Your task to perform on an android device: turn on translation in the chrome app Image 0: 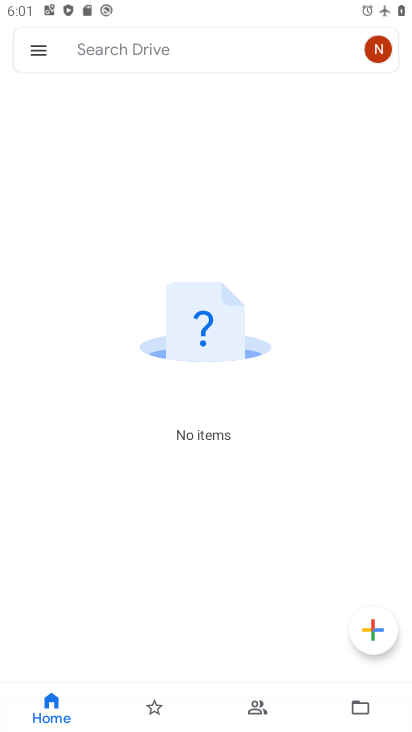
Step 0: press home button
Your task to perform on an android device: turn on translation in the chrome app Image 1: 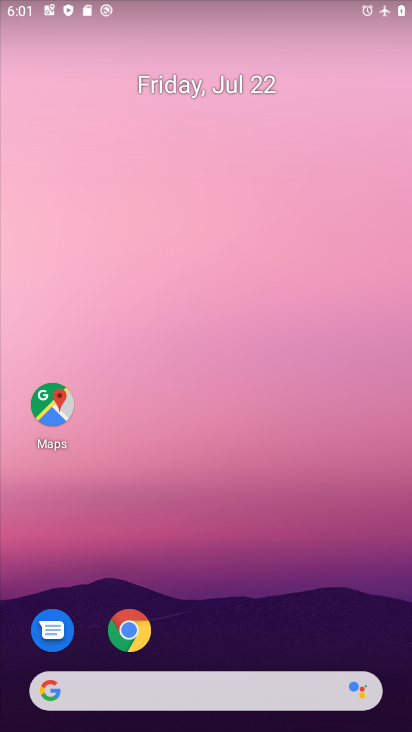
Step 1: drag from (265, 692) to (310, 13)
Your task to perform on an android device: turn on translation in the chrome app Image 2: 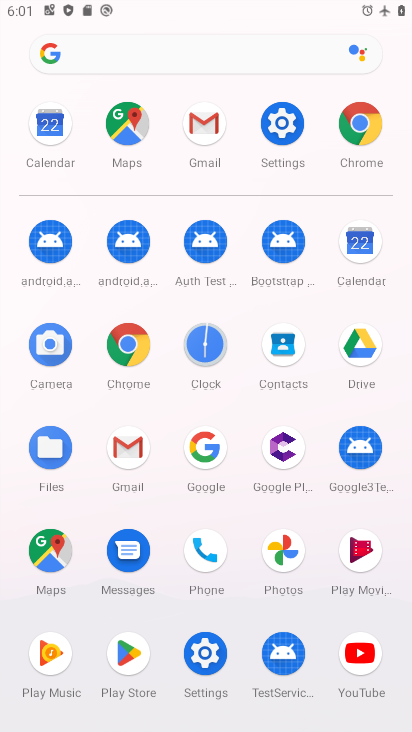
Step 2: click (142, 350)
Your task to perform on an android device: turn on translation in the chrome app Image 3: 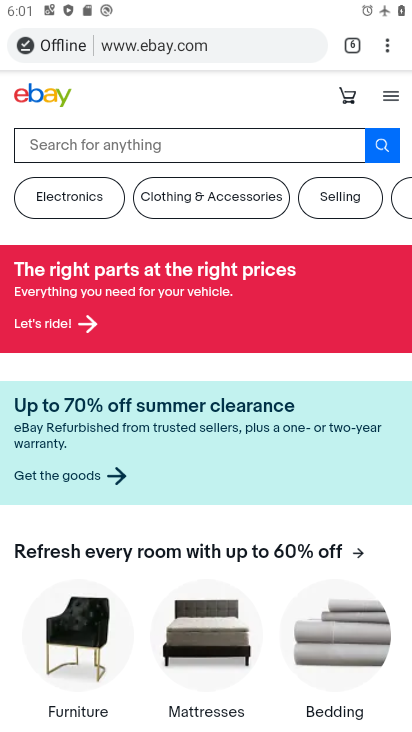
Step 3: drag from (390, 44) to (280, 503)
Your task to perform on an android device: turn on translation in the chrome app Image 4: 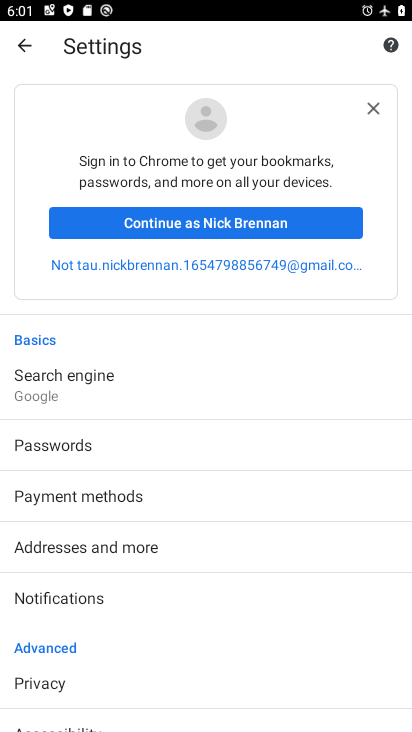
Step 4: drag from (221, 701) to (294, 237)
Your task to perform on an android device: turn on translation in the chrome app Image 5: 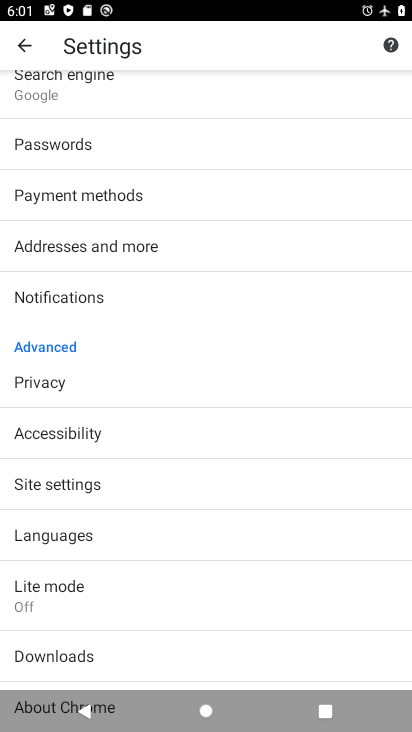
Step 5: click (74, 536)
Your task to perform on an android device: turn on translation in the chrome app Image 6: 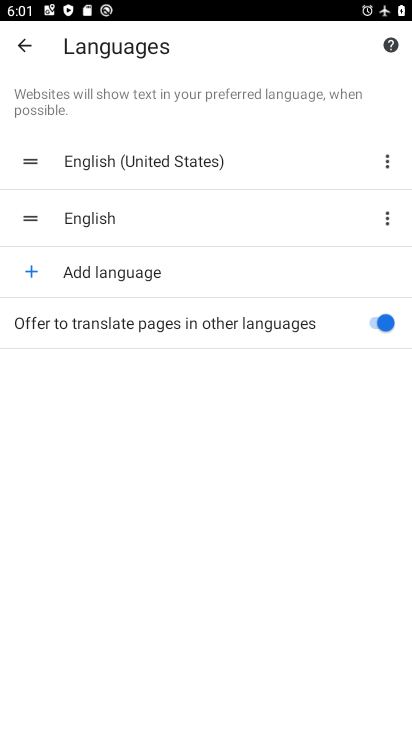
Step 6: task complete